Your task to perform on an android device: turn pop-ups off in chrome Image 0: 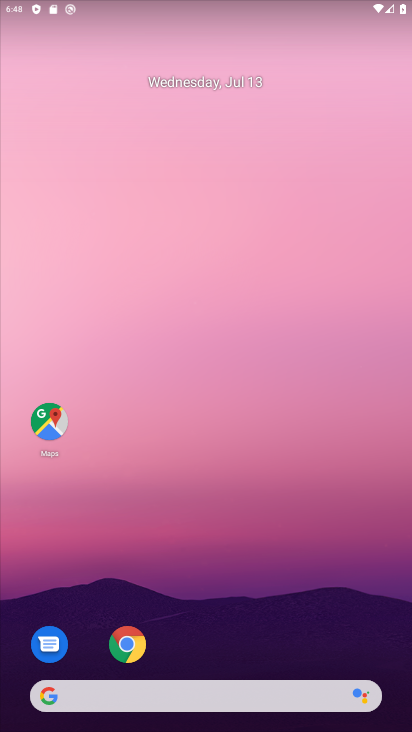
Step 0: click (193, 120)
Your task to perform on an android device: turn pop-ups off in chrome Image 1: 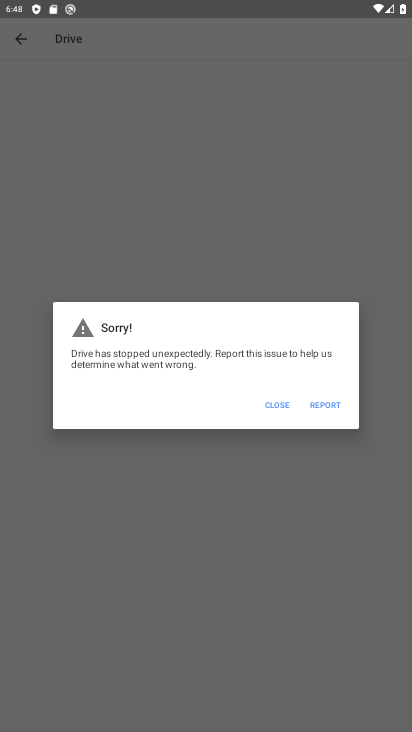
Step 1: drag from (251, 553) to (193, 2)
Your task to perform on an android device: turn pop-ups off in chrome Image 2: 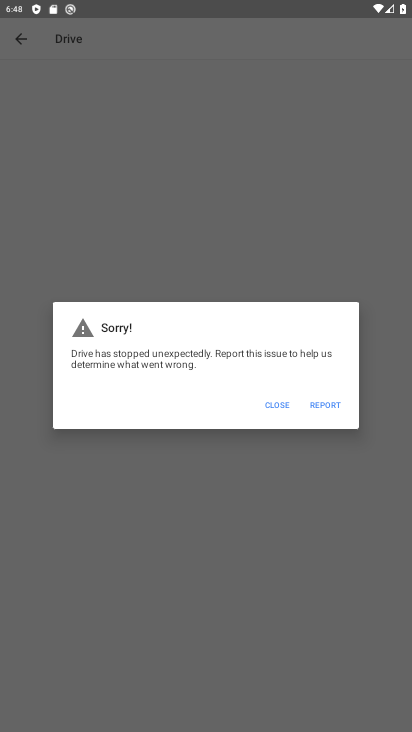
Step 2: press home button
Your task to perform on an android device: turn pop-ups off in chrome Image 3: 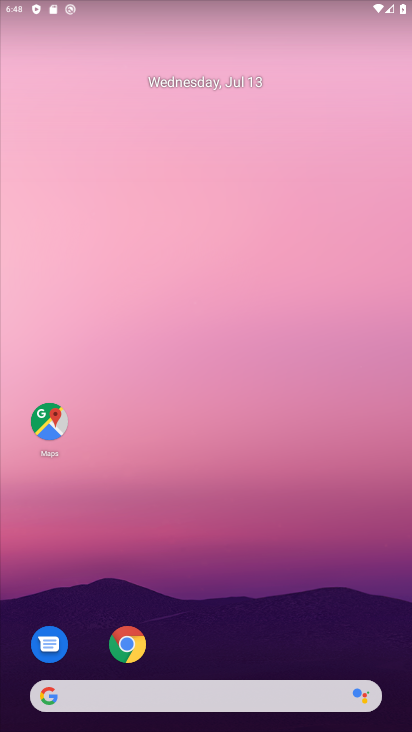
Step 3: click (131, 647)
Your task to perform on an android device: turn pop-ups off in chrome Image 4: 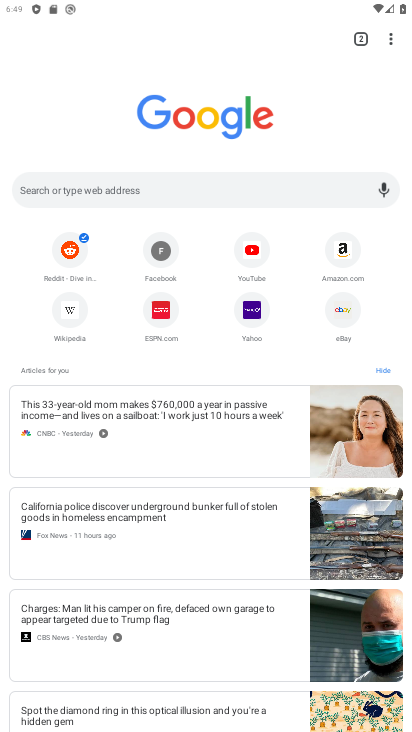
Step 4: click (390, 33)
Your task to perform on an android device: turn pop-ups off in chrome Image 5: 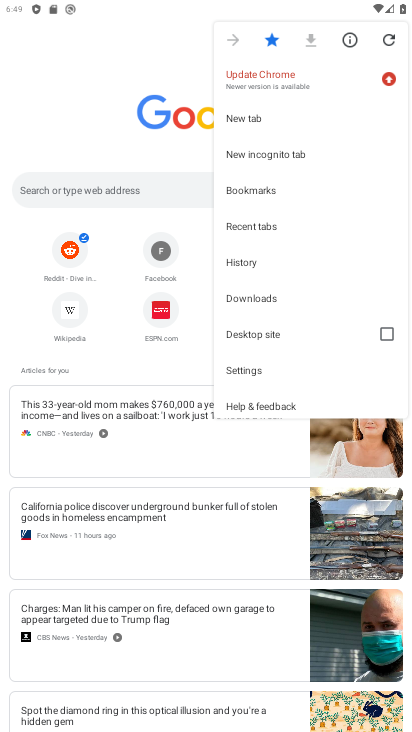
Step 5: click (244, 368)
Your task to perform on an android device: turn pop-ups off in chrome Image 6: 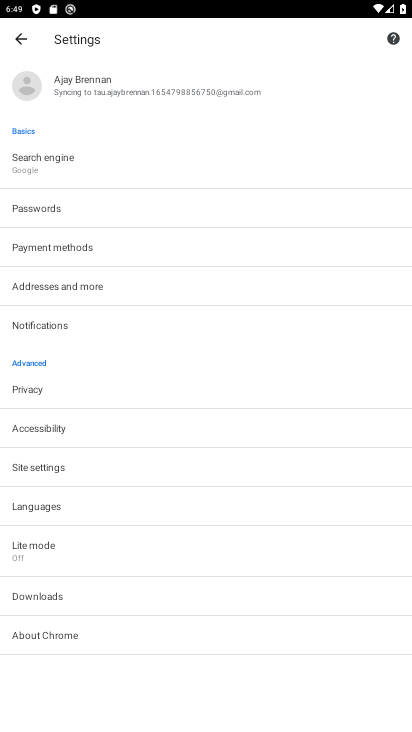
Step 6: click (46, 463)
Your task to perform on an android device: turn pop-ups off in chrome Image 7: 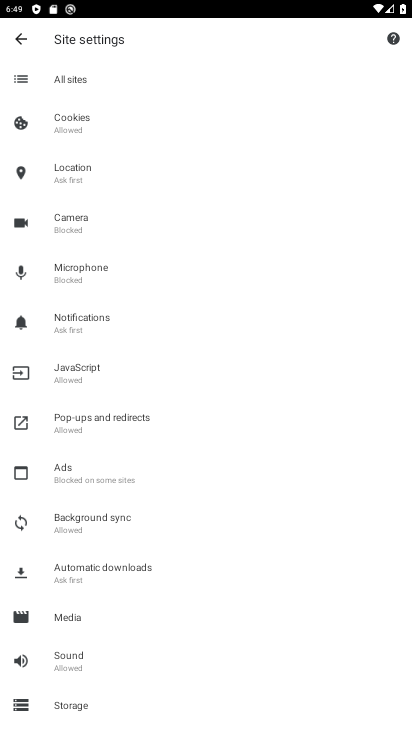
Step 7: click (94, 420)
Your task to perform on an android device: turn pop-ups off in chrome Image 8: 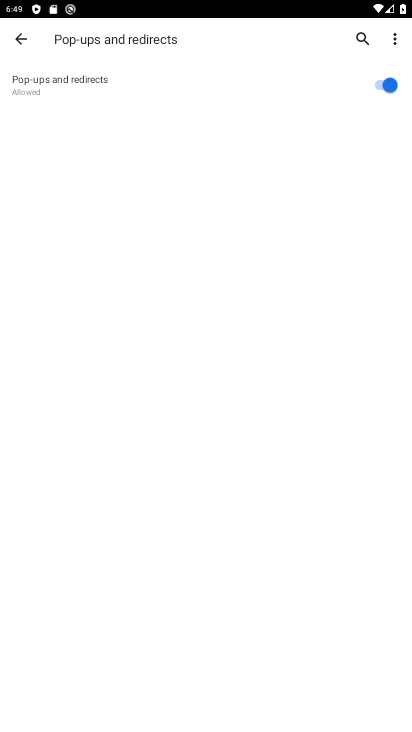
Step 8: click (389, 81)
Your task to perform on an android device: turn pop-ups off in chrome Image 9: 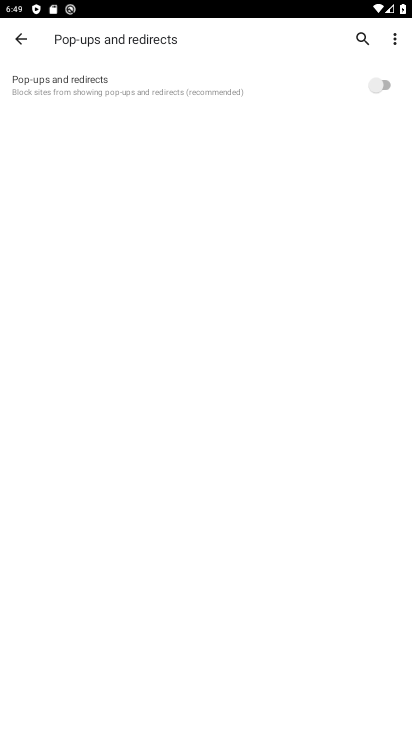
Step 9: task complete